Your task to perform on an android device: Open display settings Image 0: 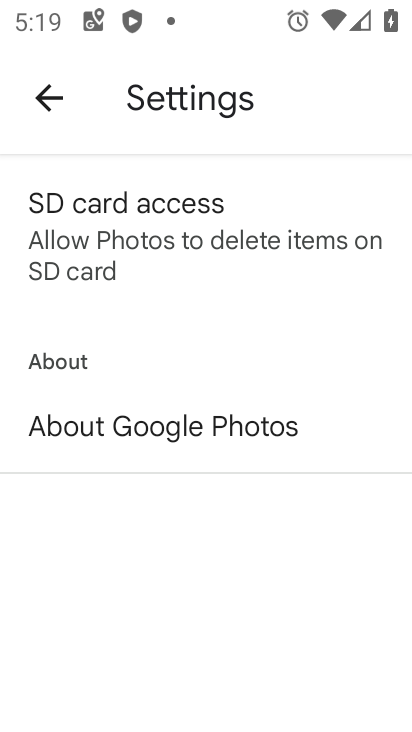
Step 0: press home button
Your task to perform on an android device: Open display settings Image 1: 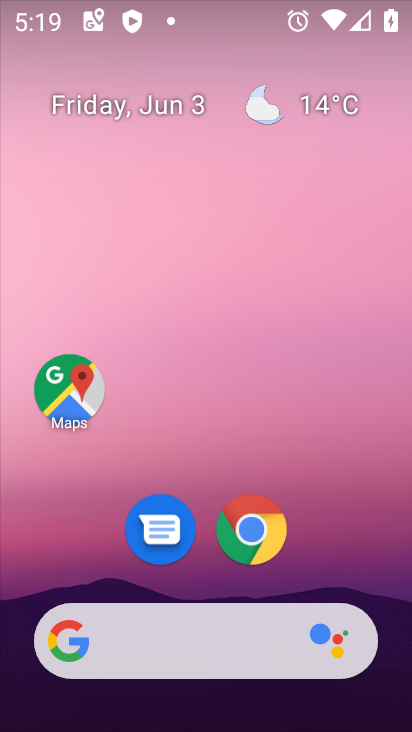
Step 1: drag from (211, 579) to (277, 26)
Your task to perform on an android device: Open display settings Image 2: 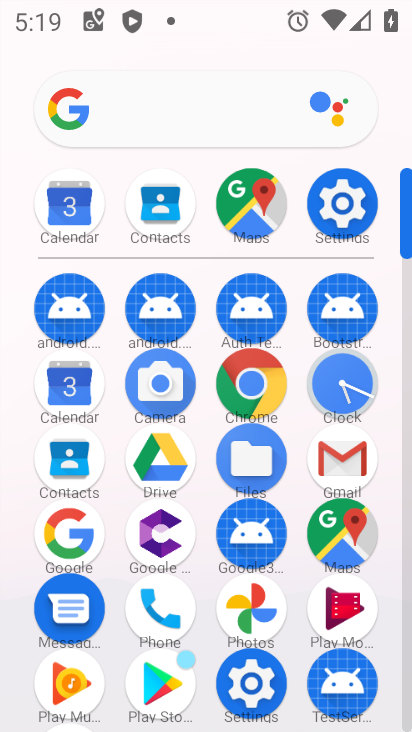
Step 2: click (338, 197)
Your task to perform on an android device: Open display settings Image 3: 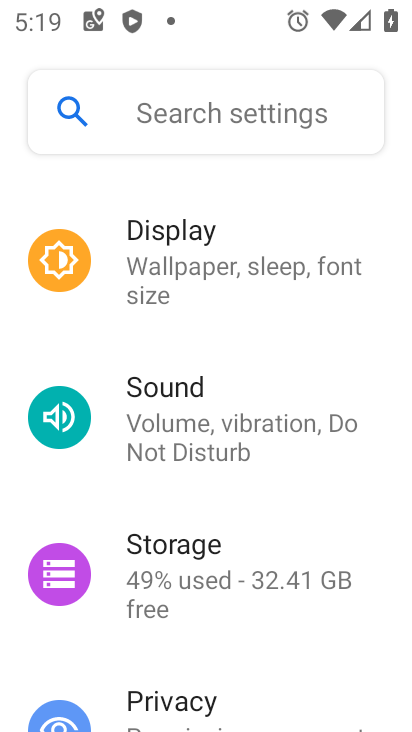
Step 3: click (222, 245)
Your task to perform on an android device: Open display settings Image 4: 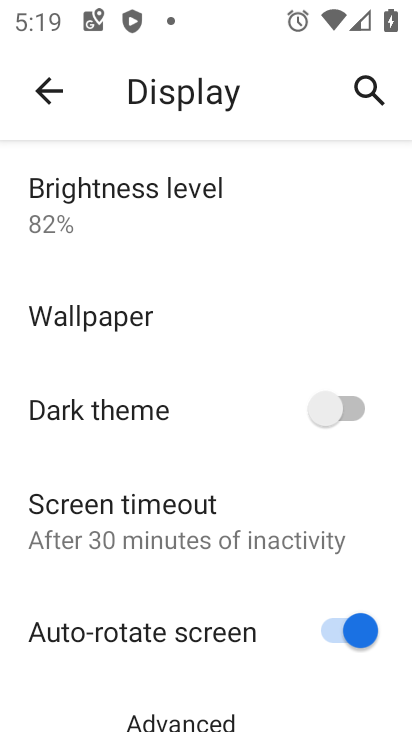
Step 4: drag from (206, 655) to (237, 168)
Your task to perform on an android device: Open display settings Image 5: 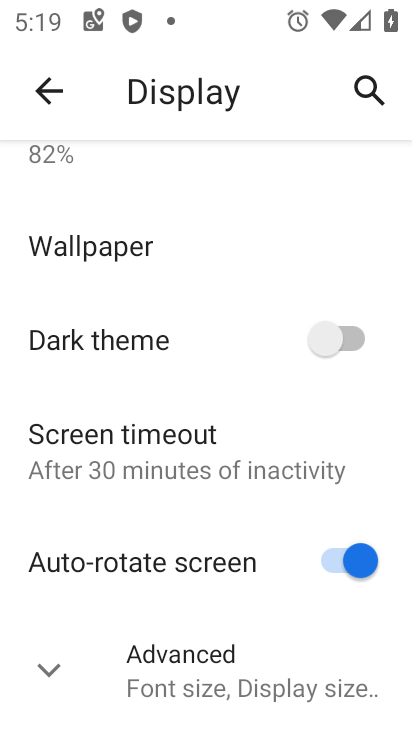
Step 5: click (47, 657)
Your task to perform on an android device: Open display settings Image 6: 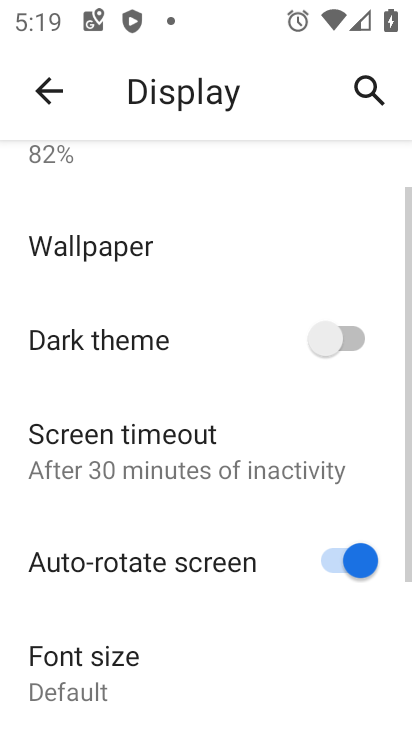
Step 6: task complete